Your task to perform on an android device: Go to Amazon Image 0: 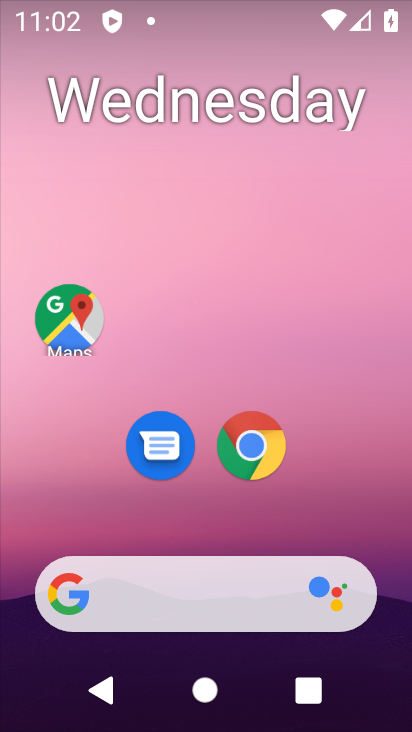
Step 0: click (246, 441)
Your task to perform on an android device: Go to Amazon Image 1: 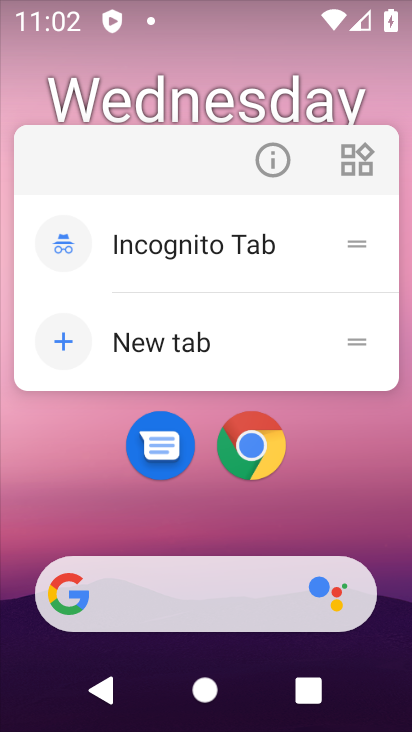
Step 1: click (253, 433)
Your task to perform on an android device: Go to Amazon Image 2: 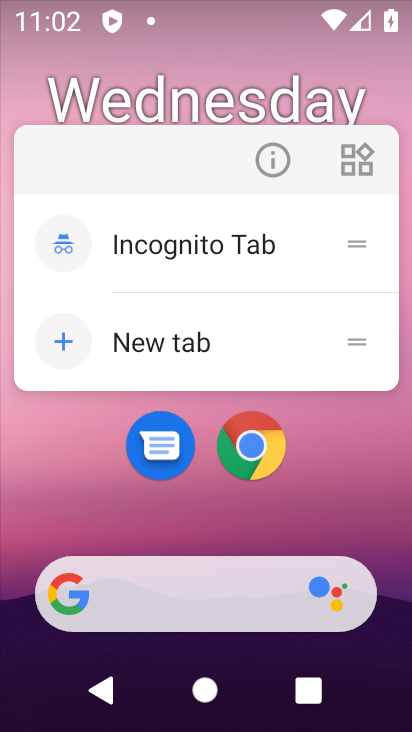
Step 2: click (262, 451)
Your task to perform on an android device: Go to Amazon Image 3: 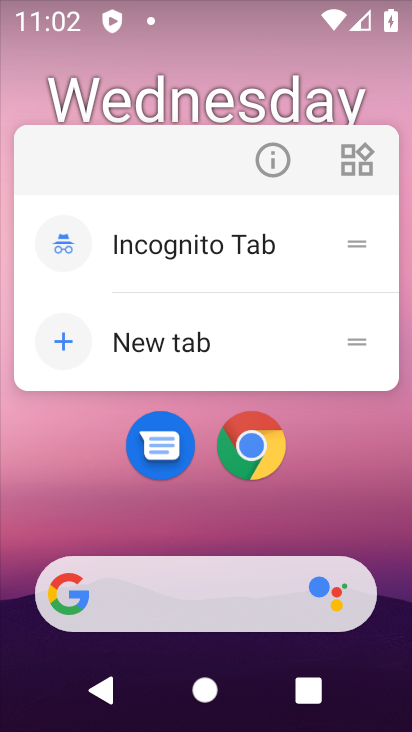
Step 3: click (263, 450)
Your task to perform on an android device: Go to Amazon Image 4: 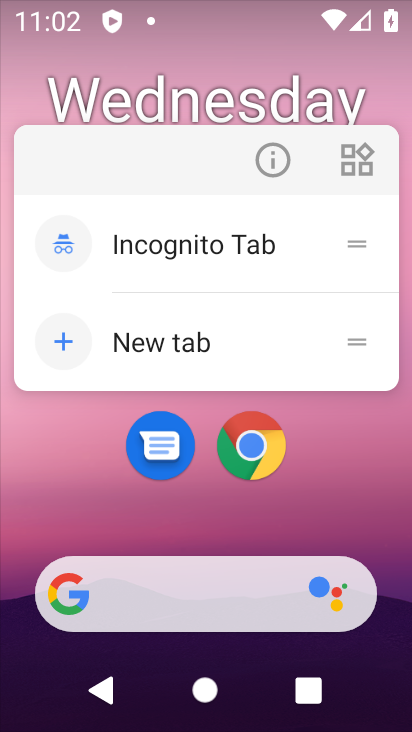
Step 4: click (248, 430)
Your task to perform on an android device: Go to Amazon Image 5: 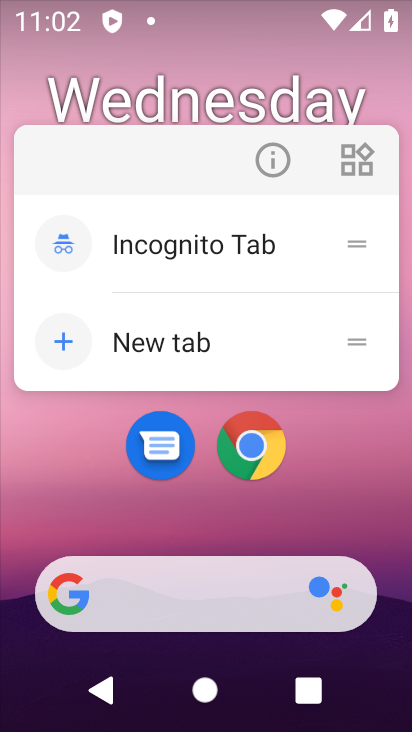
Step 5: click (262, 441)
Your task to perform on an android device: Go to Amazon Image 6: 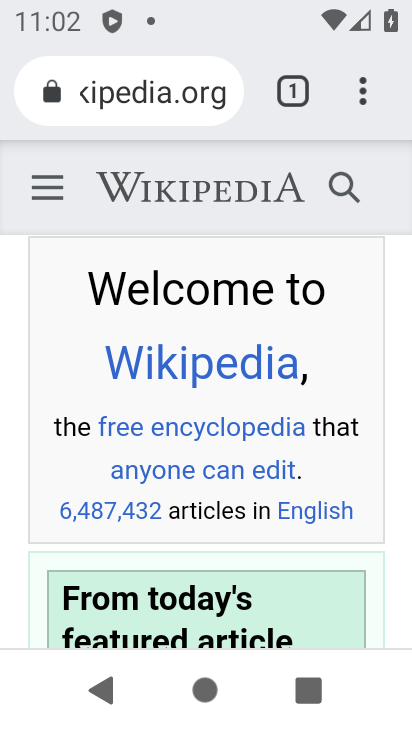
Step 6: drag from (201, 628) to (298, 144)
Your task to perform on an android device: Go to Amazon Image 7: 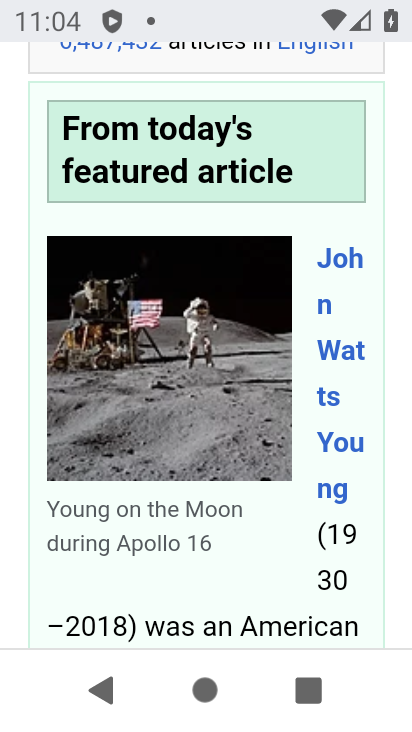
Step 7: press back button
Your task to perform on an android device: Go to Amazon Image 8: 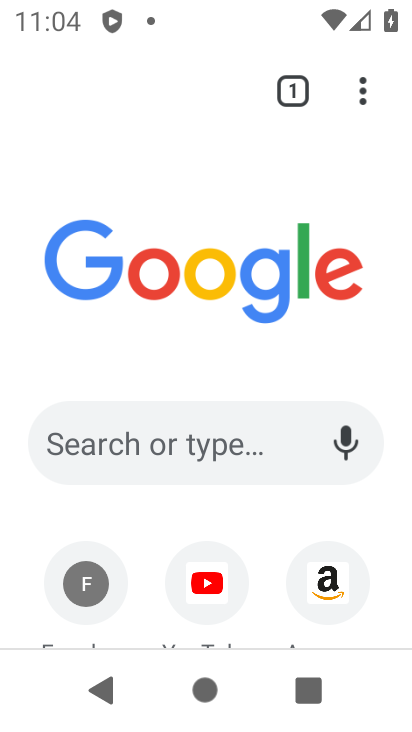
Step 8: click (299, 573)
Your task to perform on an android device: Go to Amazon Image 9: 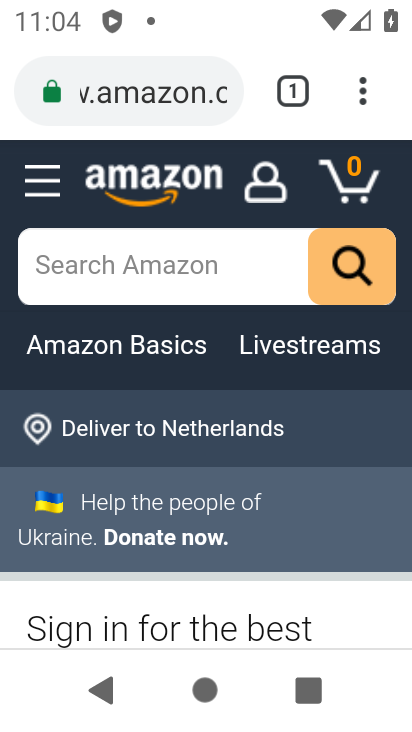
Step 9: task complete